Your task to perform on an android device: When is my next meeting? Image 0: 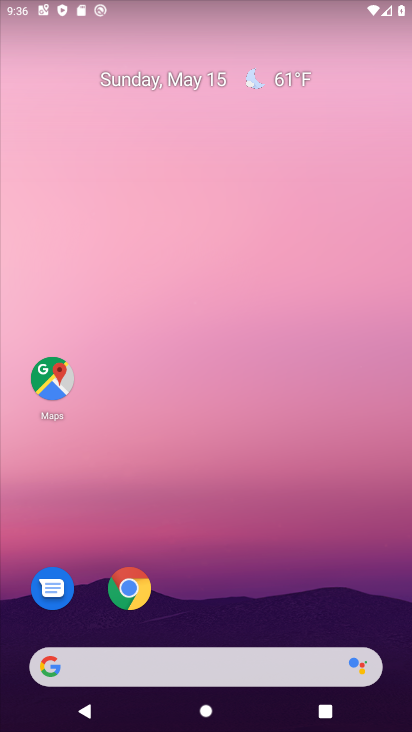
Step 0: drag from (231, 620) to (302, 0)
Your task to perform on an android device: When is my next meeting? Image 1: 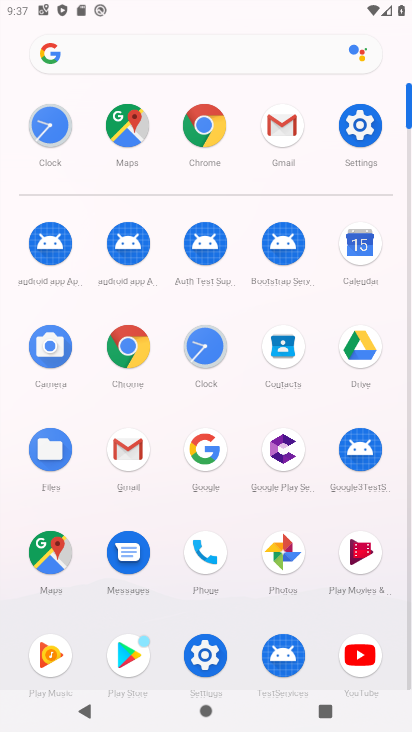
Step 1: click (354, 260)
Your task to perform on an android device: When is my next meeting? Image 2: 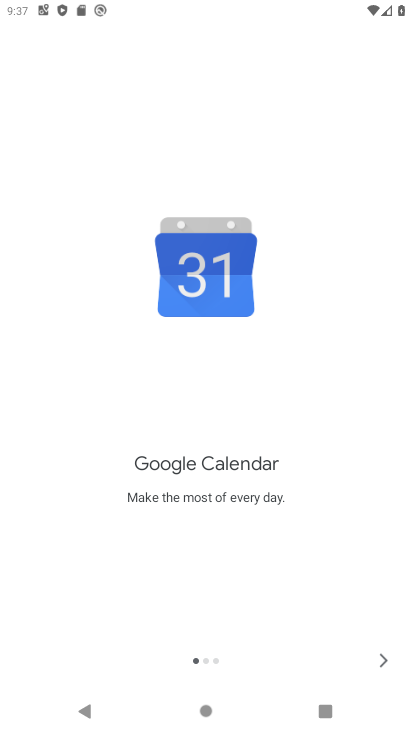
Step 2: click (370, 661)
Your task to perform on an android device: When is my next meeting? Image 3: 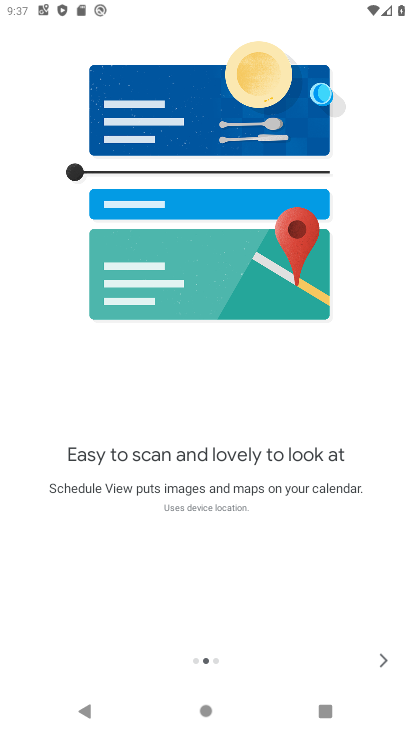
Step 3: click (379, 666)
Your task to perform on an android device: When is my next meeting? Image 4: 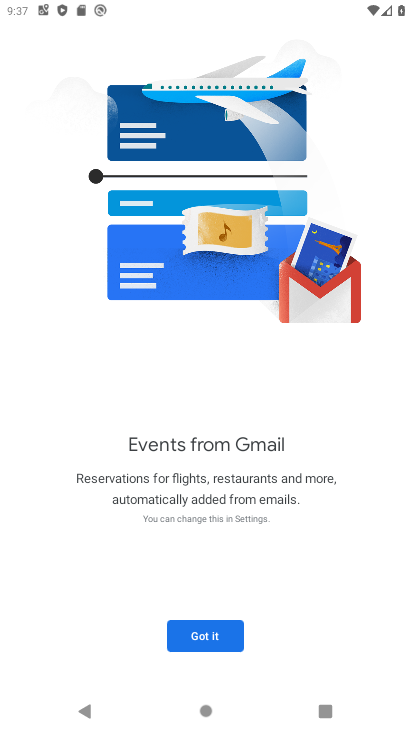
Step 4: click (192, 640)
Your task to perform on an android device: When is my next meeting? Image 5: 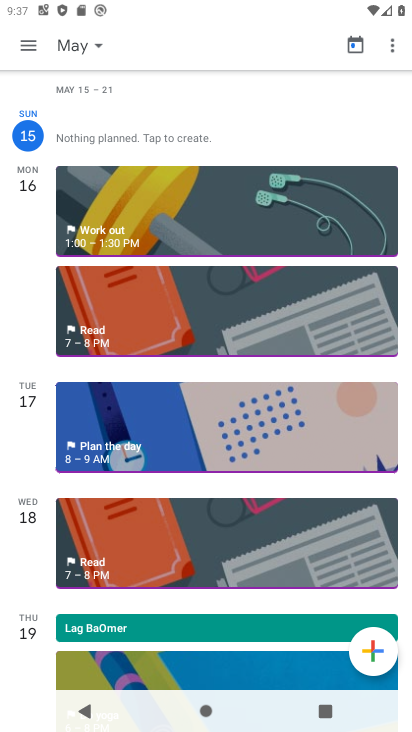
Step 5: click (214, 647)
Your task to perform on an android device: When is my next meeting? Image 6: 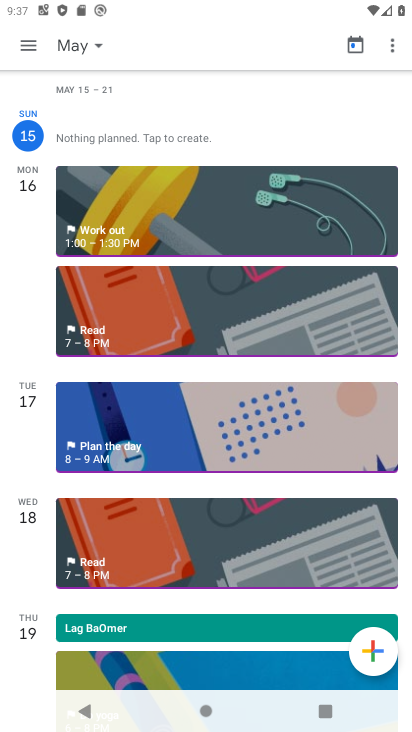
Step 6: task complete